Your task to perform on an android device: Open Reddit.com Image 0: 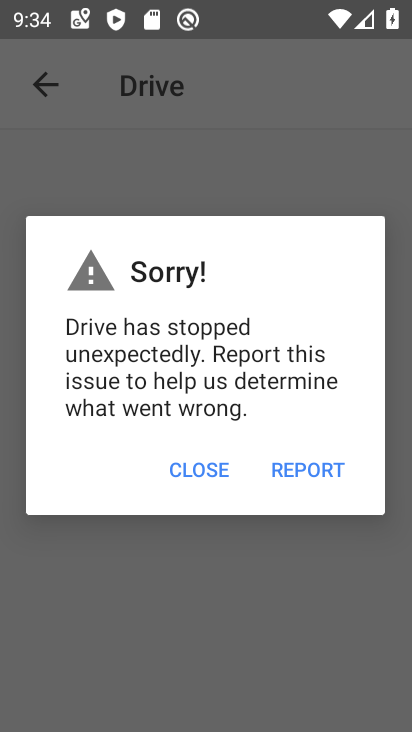
Step 0: click (203, 472)
Your task to perform on an android device: Open Reddit.com Image 1: 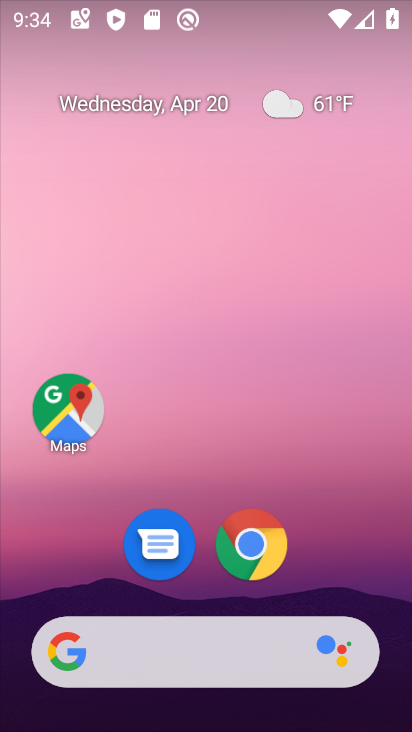
Step 1: click (272, 542)
Your task to perform on an android device: Open Reddit.com Image 2: 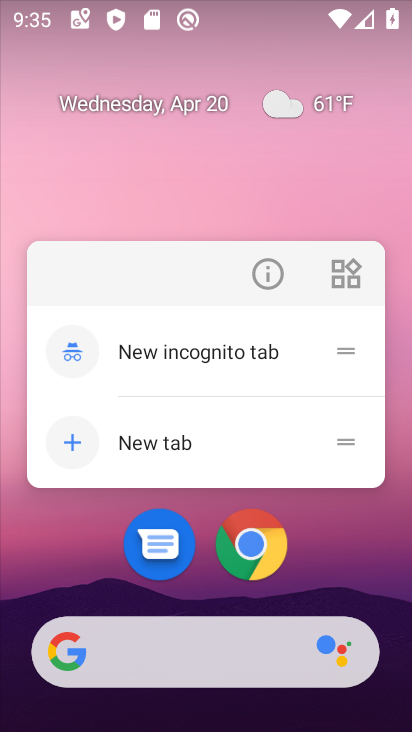
Step 2: click (272, 542)
Your task to perform on an android device: Open Reddit.com Image 3: 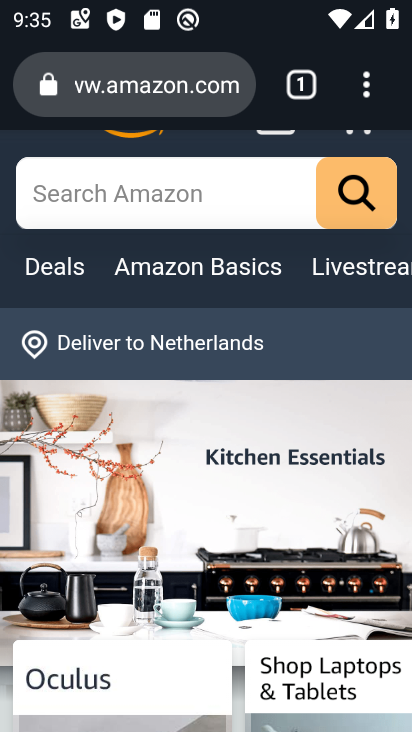
Step 3: click (220, 93)
Your task to perform on an android device: Open Reddit.com Image 4: 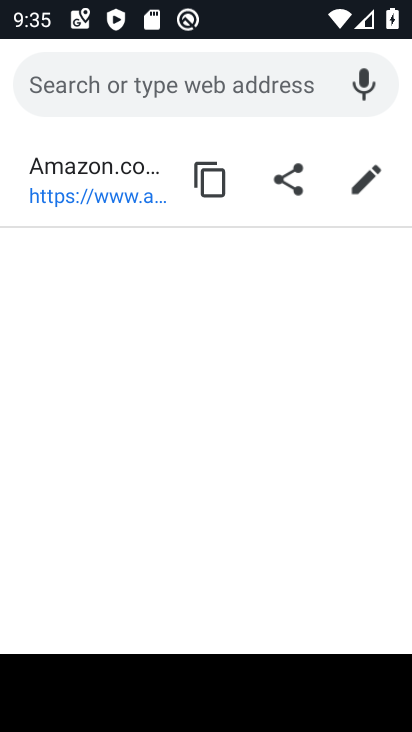
Step 4: type "reddit.com"
Your task to perform on an android device: Open Reddit.com Image 5: 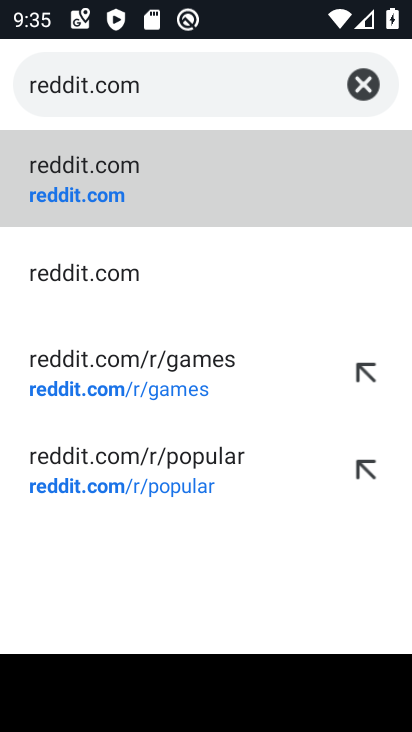
Step 5: click (146, 196)
Your task to perform on an android device: Open Reddit.com Image 6: 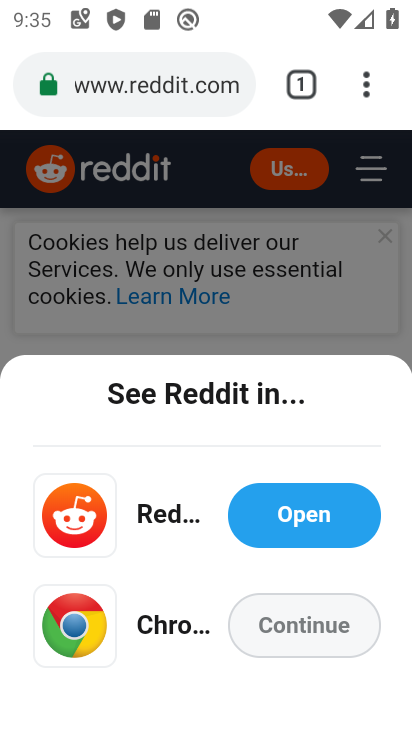
Step 6: click (307, 625)
Your task to perform on an android device: Open Reddit.com Image 7: 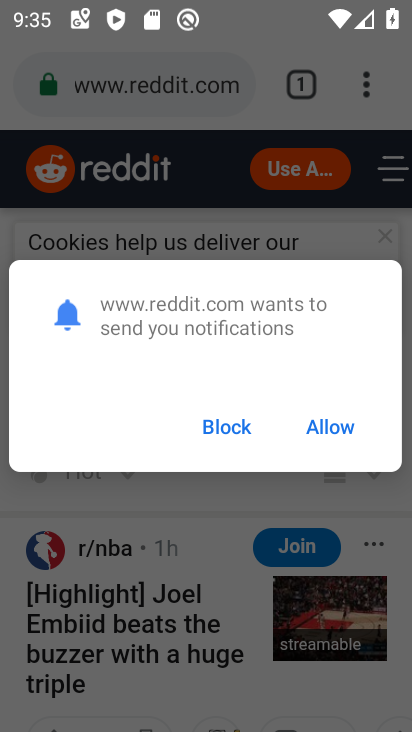
Step 7: click (224, 434)
Your task to perform on an android device: Open Reddit.com Image 8: 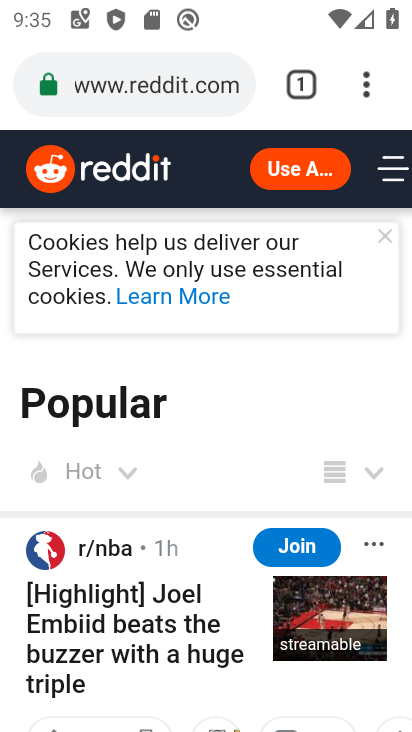
Step 8: task complete